Your task to perform on an android device: find snoozed emails in the gmail app Image 0: 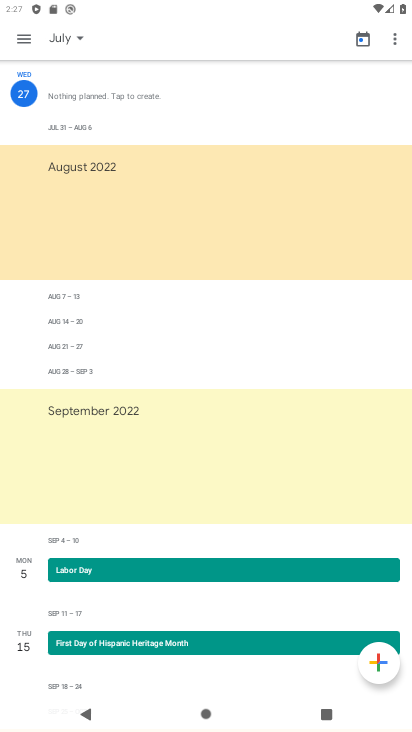
Step 0: press home button
Your task to perform on an android device: find snoozed emails in the gmail app Image 1: 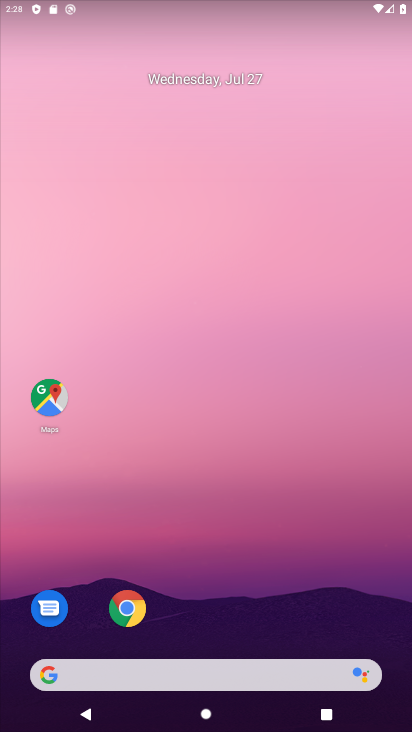
Step 1: drag from (250, 558) to (285, 243)
Your task to perform on an android device: find snoozed emails in the gmail app Image 2: 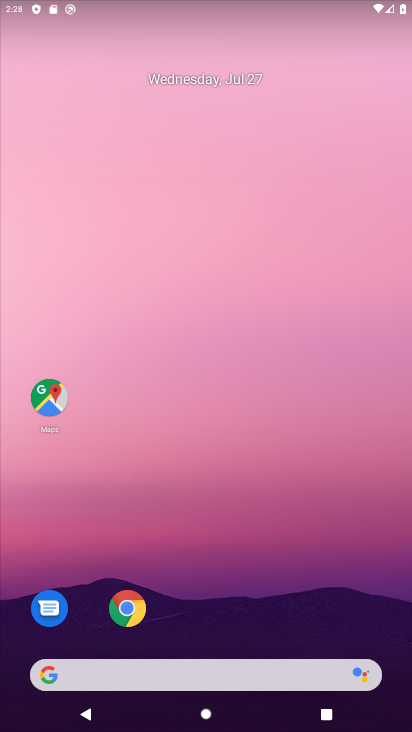
Step 2: drag from (273, 509) to (315, 123)
Your task to perform on an android device: find snoozed emails in the gmail app Image 3: 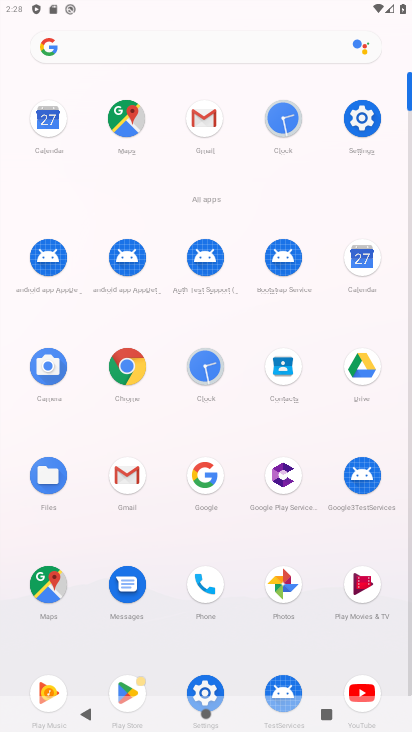
Step 3: click (126, 467)
Your task to perform on an android device: find snoozed emails in the gmail app Image 4: 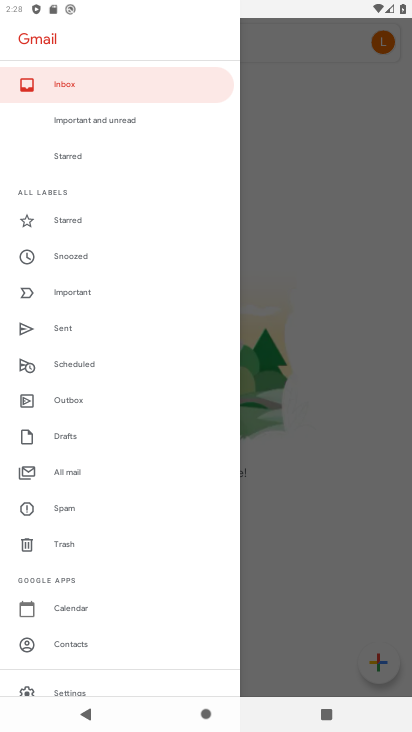
Step 4: click (67, 248)
Your task to perform on an android device: find snoozed emails in the gmail app Image 5: 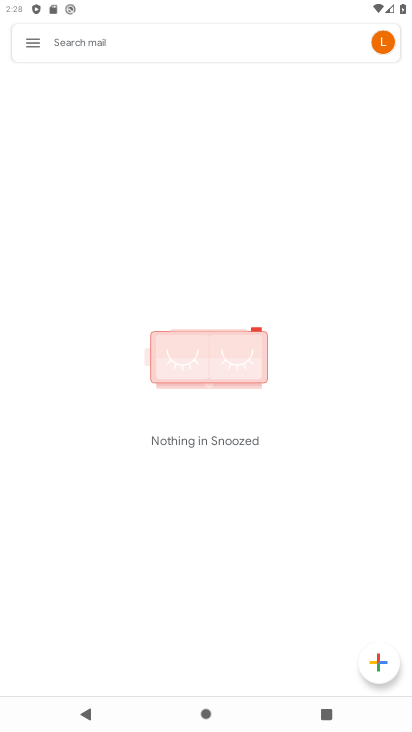
Step 5: task complete